Your task to perform on an android device: turn on location history Image 0: 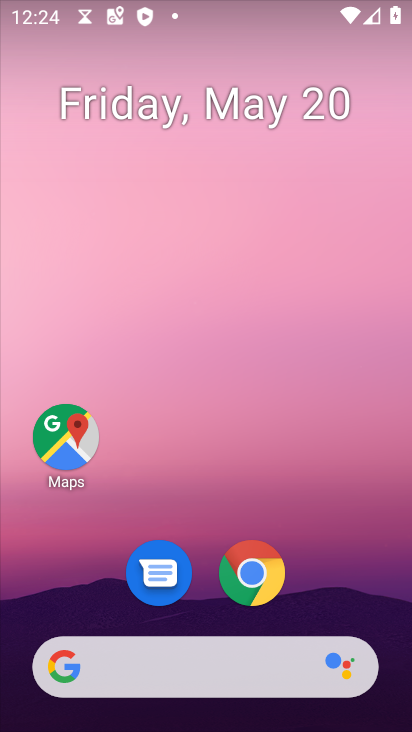
Step 0: drag from (331, 506) to (361, 10)
Your task to perform on an android device: turn on location history Image 1: 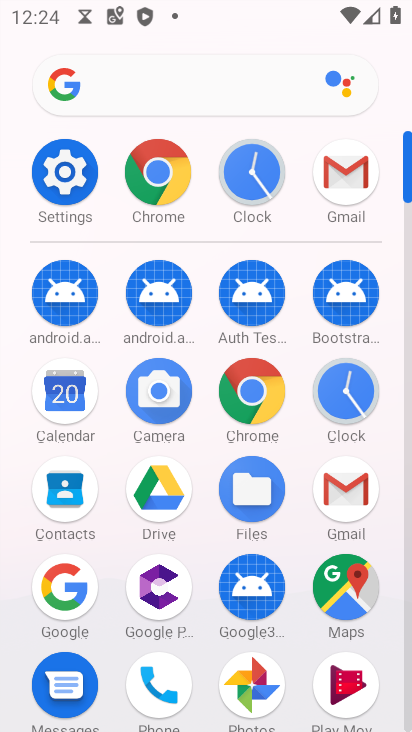
Step 1: click (72, 185)
Your task to perform on an android device: turn on location history Image 2: 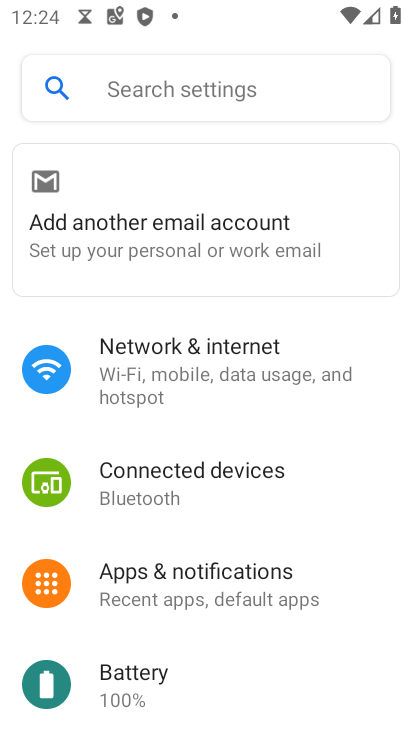
Step 2: drag from (193, 636) to (199, 208)
Your task to perform on an android device: turn on location history Image 3: 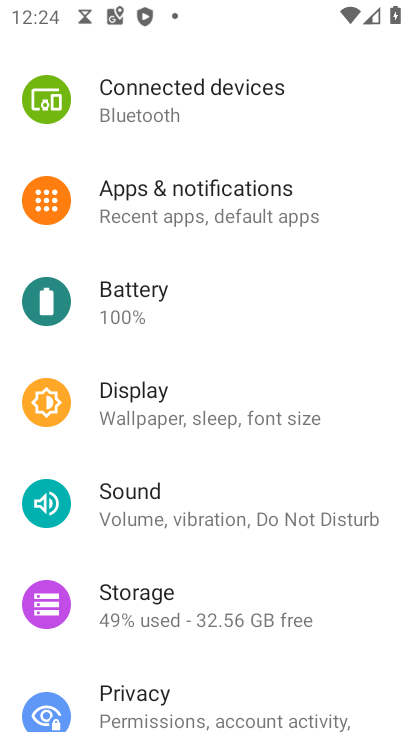
Step 3: drag from (206, 602) to (193, 267)
Your task to perform on an android device: turn on location history Image 4: 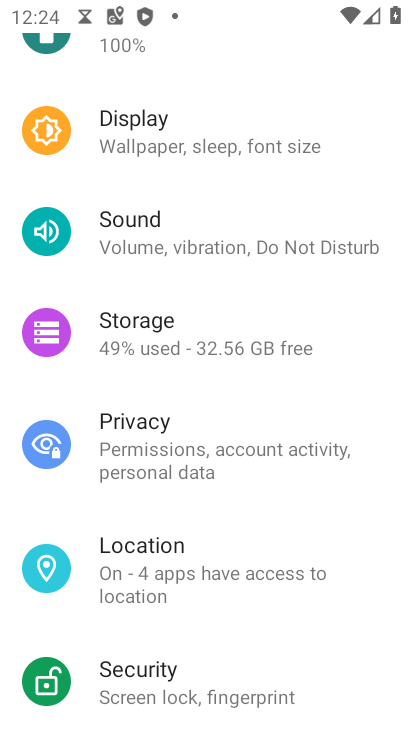
Step 4: click (185, 587)
Your task to perform on an android device: turn on location history Image 5: 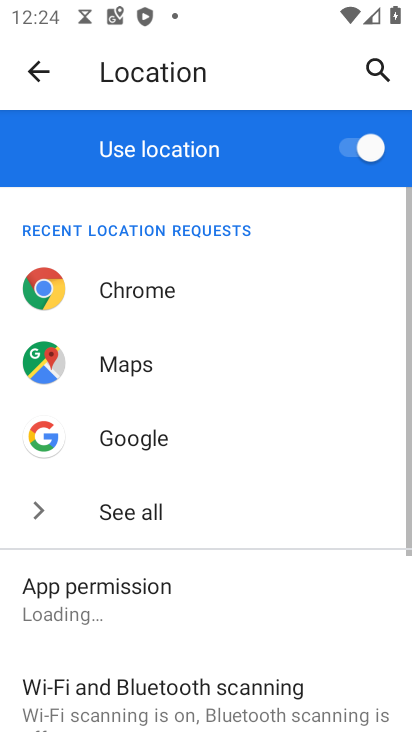
Step 5: drag from (163, 584) to (174, 144)
Your task to perform on an android device: turn on location history Image 6: 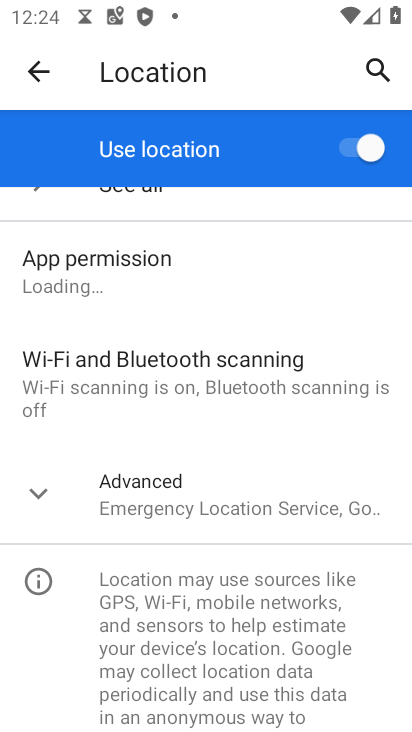
Step 6: click (171, 498)
Your task to perform on an android device: turn on location history Image 7: 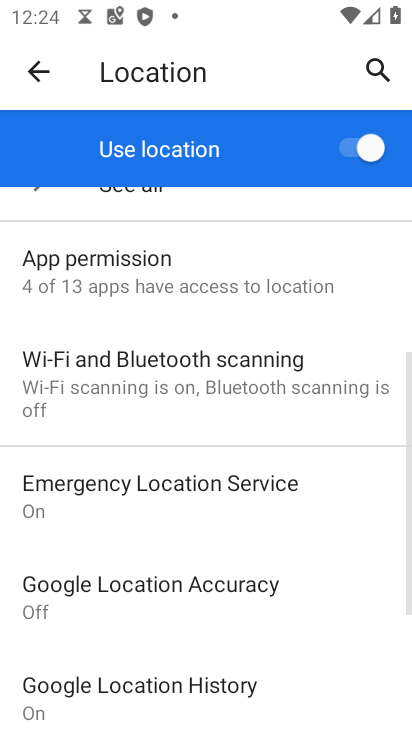
Step 7: click (207, 694)
Your task to perform on an android device: turn on location history Image 8: 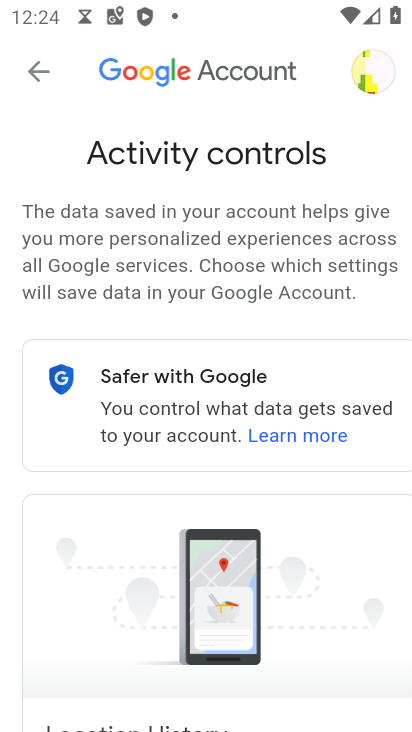
Step 8: task complete